Your task to perform on an android device: toggle notifications settings in the gmail app Image 0: 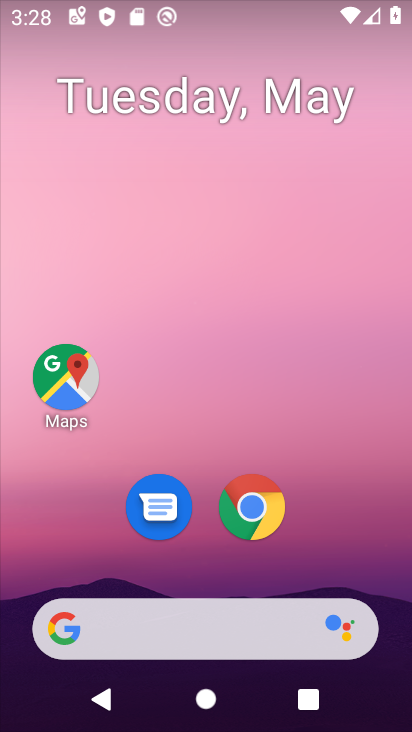
Step 0: drag from (306, 565) to (298, 72)
Your task to perform on an android device: toggle notifications settings in the gmail app Image 1: 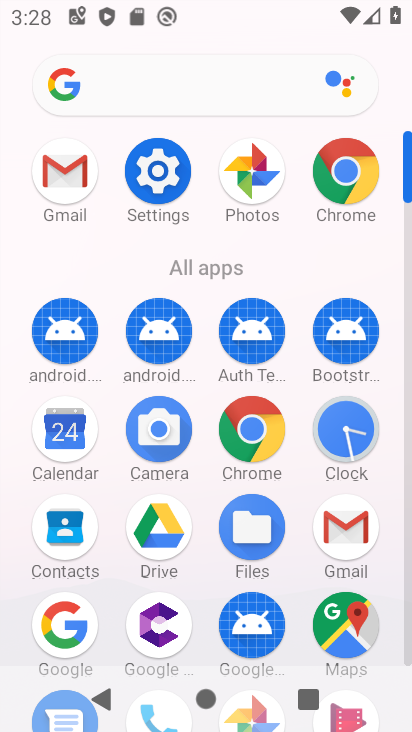
Step 1: click (335, 541)
Your task to perform on an android device: toggle notifications settings in the gmail app Image 2: 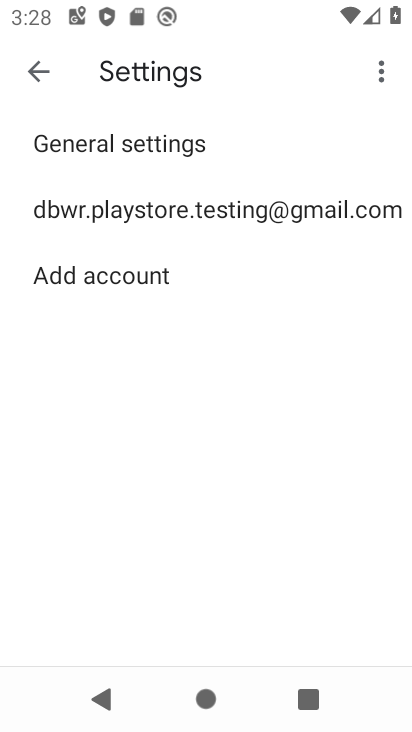
Step 2: click (134, 210)
Your task to perform on an android device: toggle notifications settings in the gmail app Image 3: 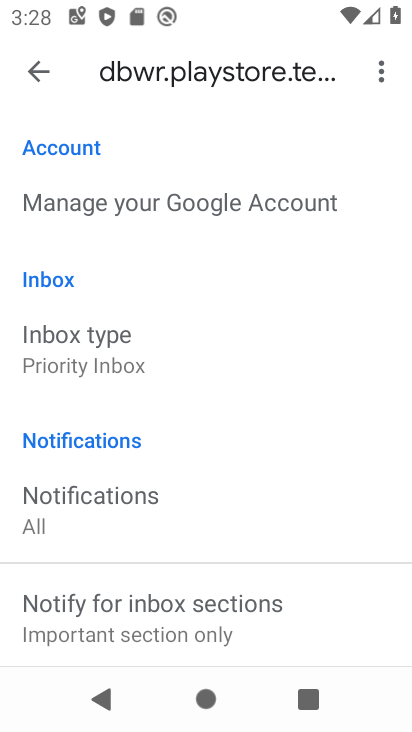
Step 3: drag from (128, 615) to (173, 198)
Your task to perform on an android device: toggle notifications settings in the gmail app Image 4: 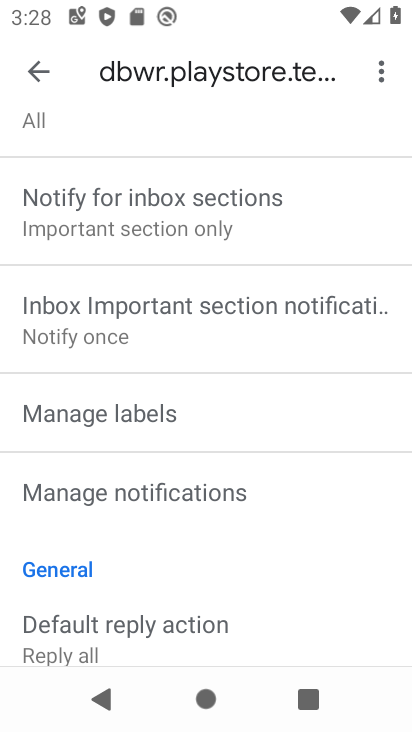
Step 4: click (179, 503)
Your task to perform on an android device: toggle notifications settings in the gmail app Image 5: 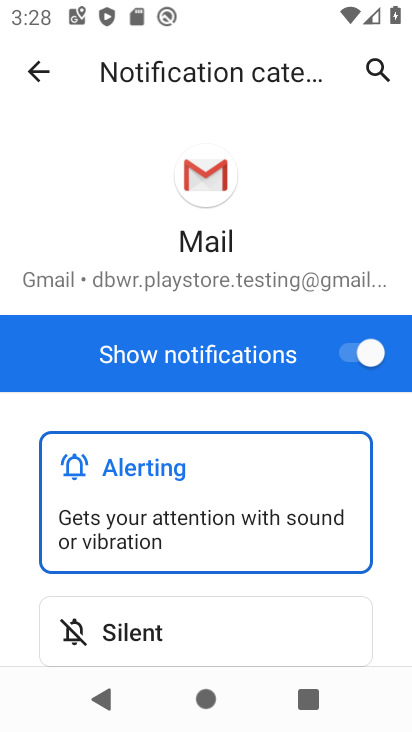
Step 5: click (351, 360)
Your task to perform on an android device: toggle notifications settings in the gmail app Image 6: 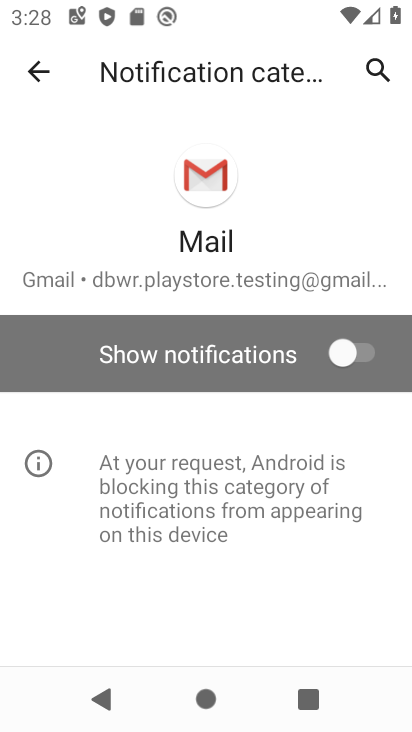
Step 6: task complete